Your task to perform on an android device: Go to Google maps Image 0: 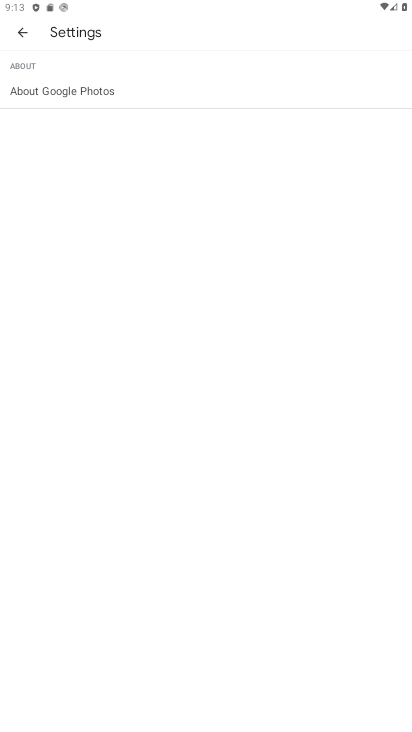
Step 0: press home button
Your task to perform on an android device: Go to Google maps Image 1: 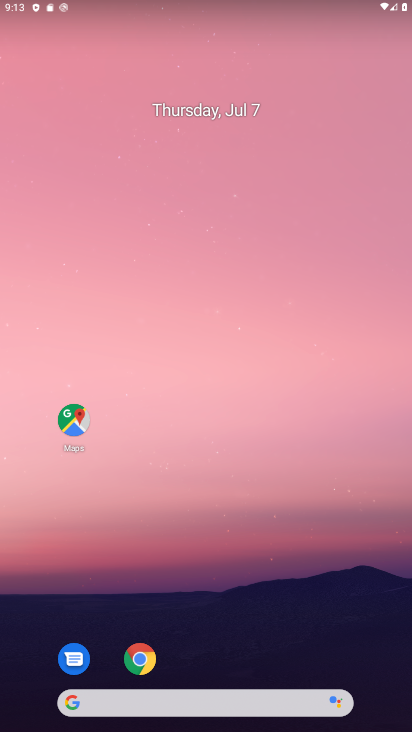
Step 1: click (75, 417)
Your task to perform on an android device: Go to Google maps Image 2: 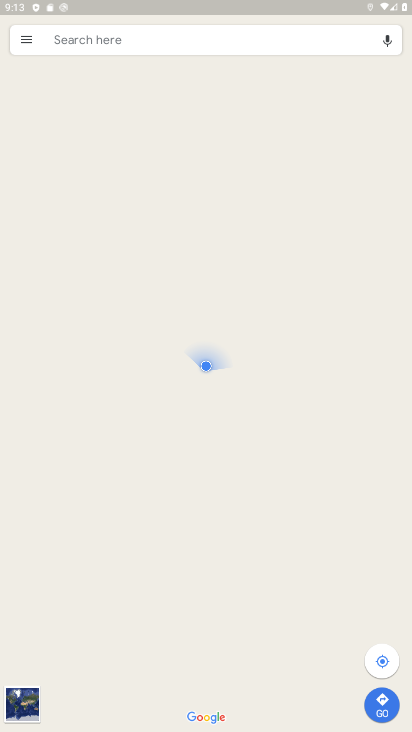
Step 2: task complete